Your task to perform on an android device: change your default location settings in chrome Image 0: 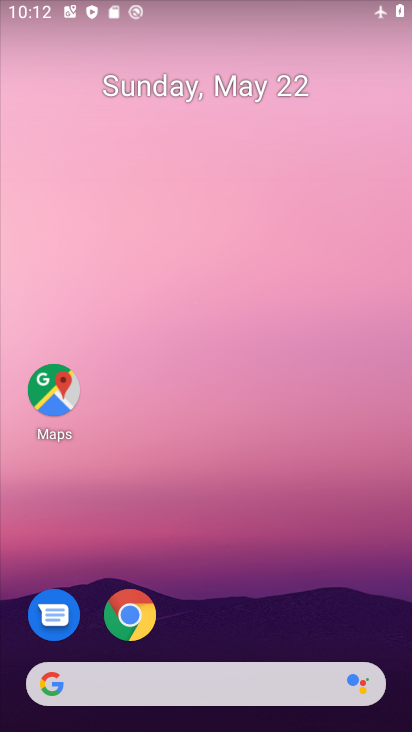
Step 0: click (139, 609)
Your task to perform on an android device: change your default location settings in chrome Image 1: 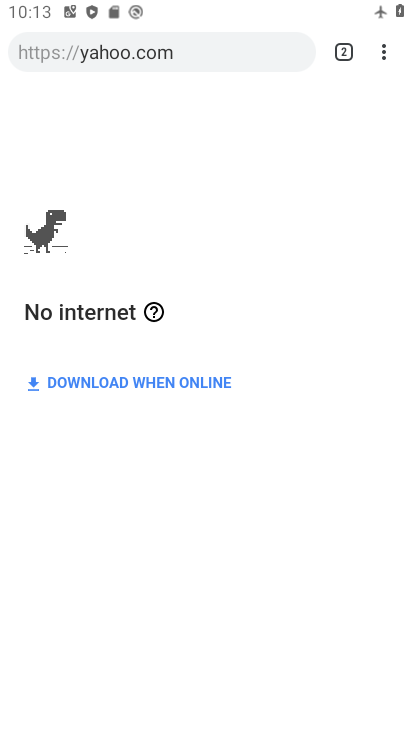
Step 1: click (386, 43)
Your task to perform on an android device: change your default location settings in chrome Image 2: 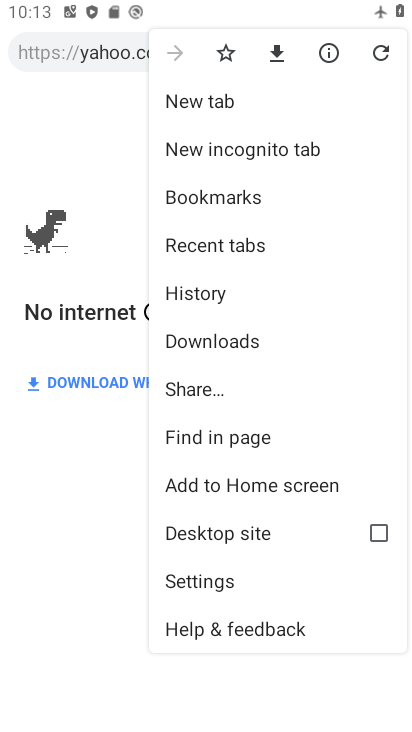
Step 2: click (242, 592)
Your task to perform on an android device: change your default location settings in chrome Image 3: 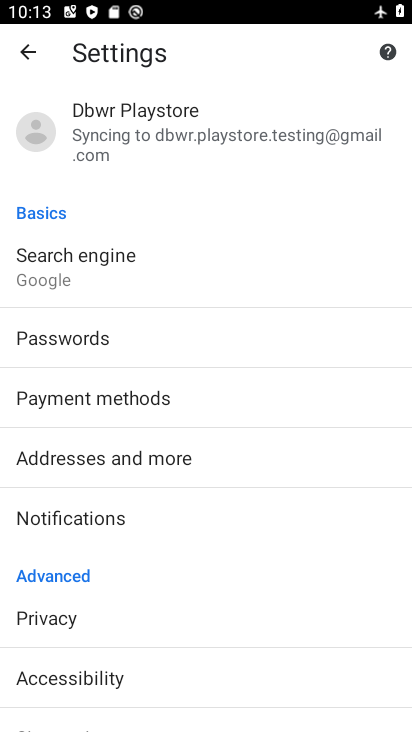
Step 3: drag from (179, 644) to (241, 154)
Your task to perform on an android device: change your default location settings in chrome Image 4: 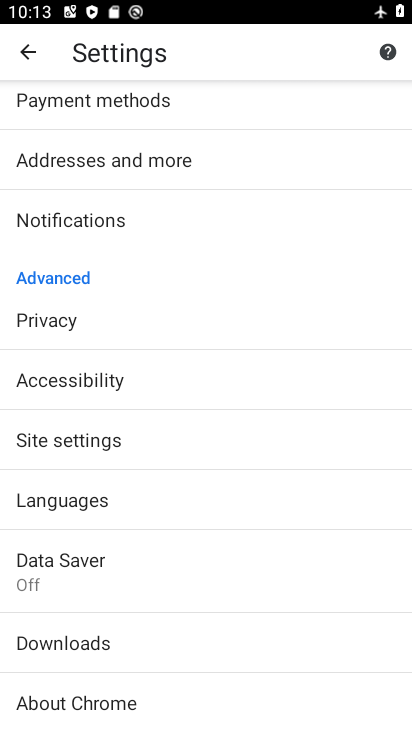
Step 4: click (111, 443)
Your task to perform on an android device: change your default location settings in chrome Image 5: 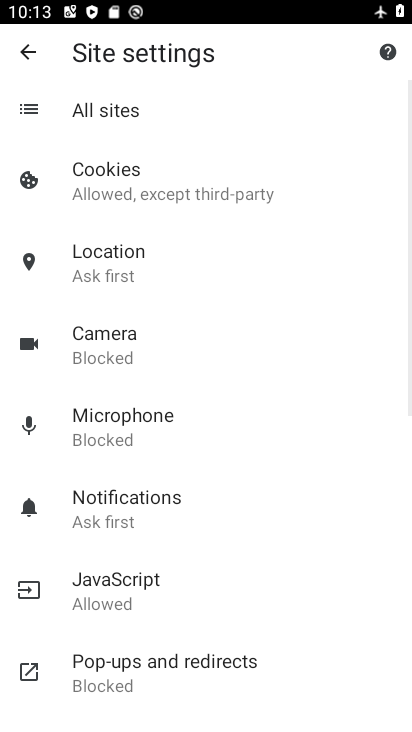
Step 5: click (202, 236)
Your task to perform on an android device: change your default location settings in chrome Image 6: 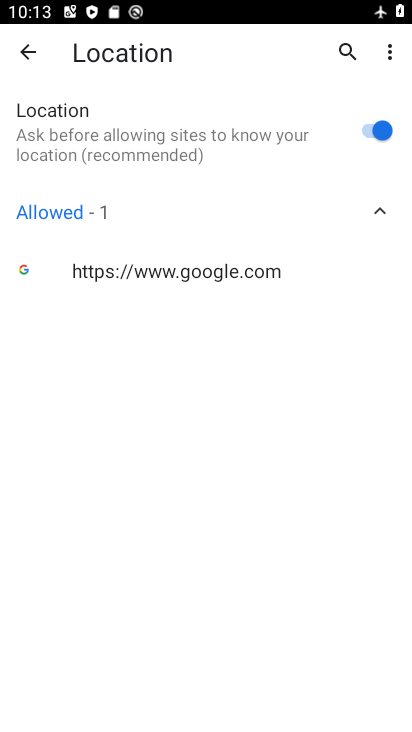
Step 6: click (385, 132)
Your task to perform on an android device: change your default location settings in chrome Image 7: 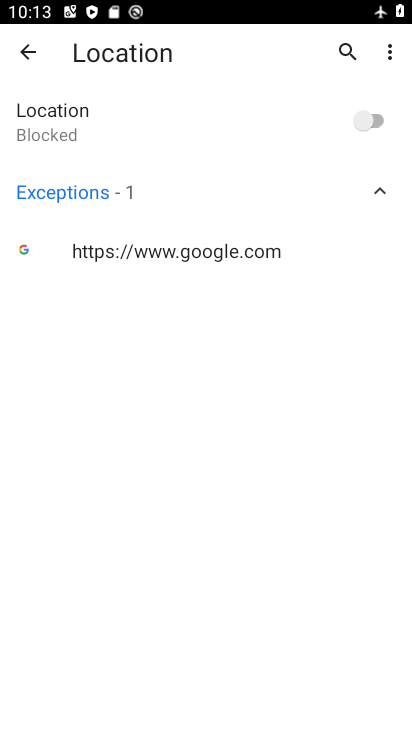
Step 7: task complete